Your task to perform on an android device: Go to internet settings Image 0: 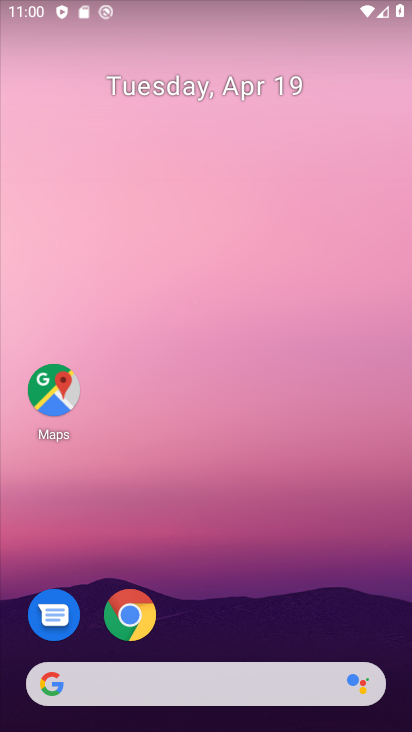
Step 0: drag from (218, 648) to (222, 308)
Your task to perform on an android device: Go to internet settings Image 1: 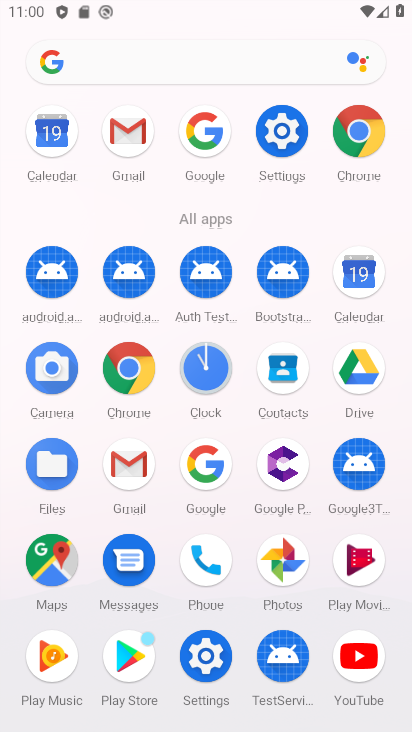
Step 1: click (272, 136)
Your task to perform on an android device: Go to internet settings Image 2: 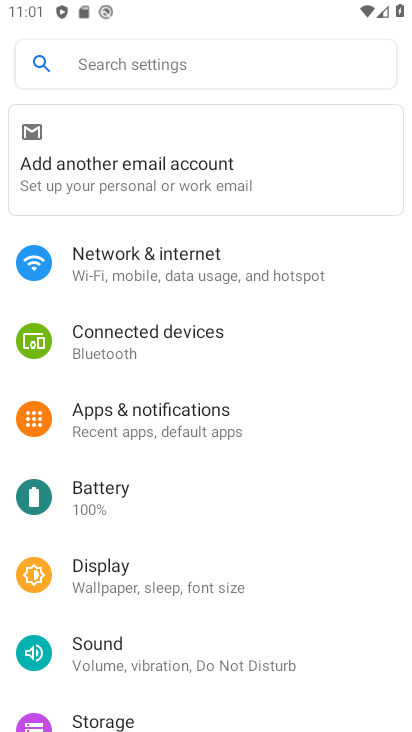
Step 2: click (211, 259)
Your task to perform on an android device: Go to internet settings Image 3: 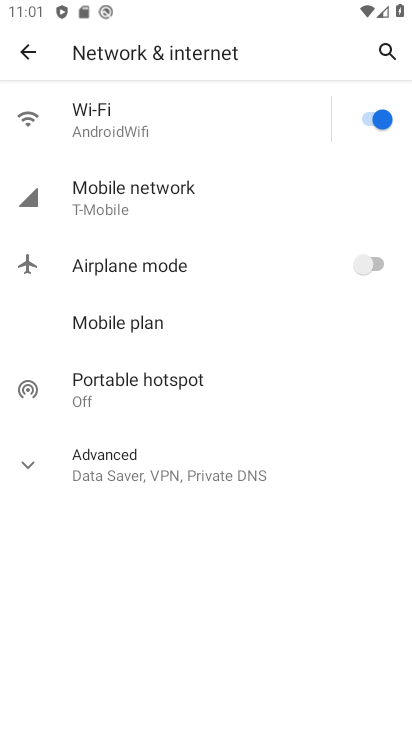
Step 3: click (109, 467)
Your task to perform on an android device: Go to internet settings Image 4: 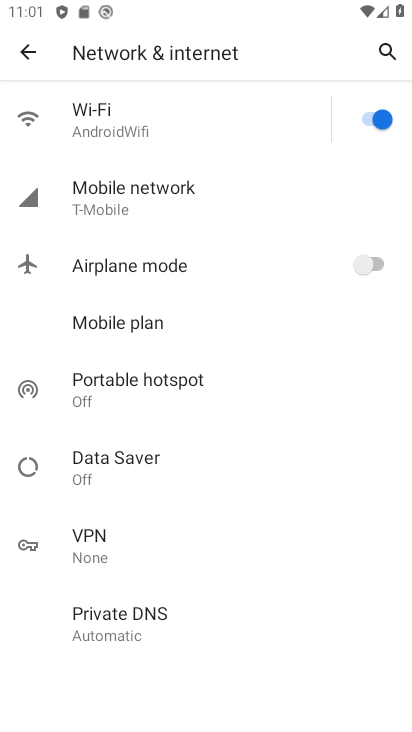
Step 4: task complete